Your task to perform on an android device: Do I have any events this weekend? Image 0: 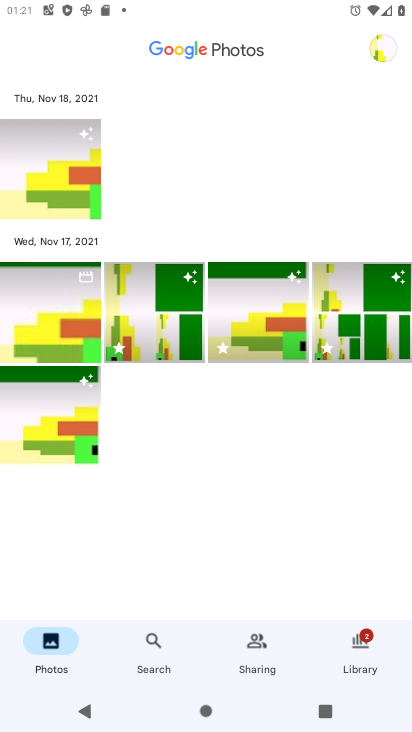
Step 0: press home button
Your task to perform on an android device: Do I have any events this weekend? Image 1: 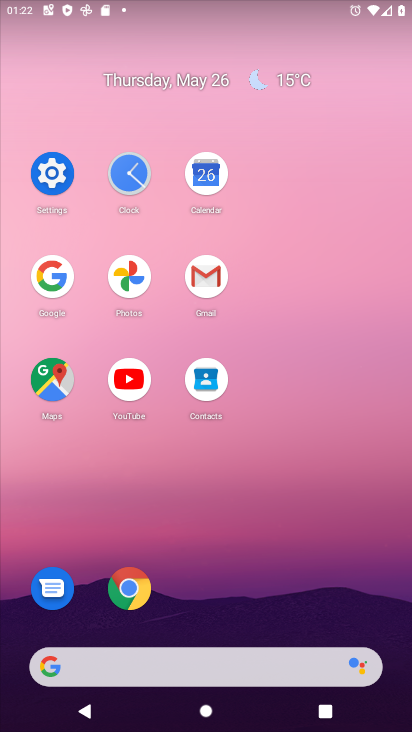
Step 1: click (210, 184)
Your task to perform on an android device: Do I have any events this weekend? Image 2: 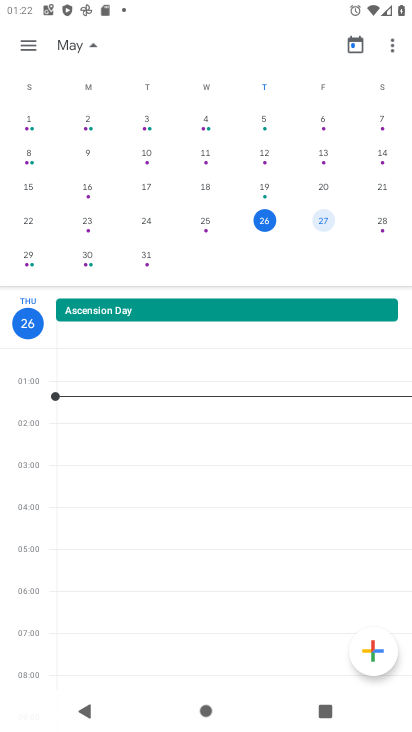
Step 2: click (21, 43)
Your task to perform on an android device: Do I have any events this weekend? Image 3: 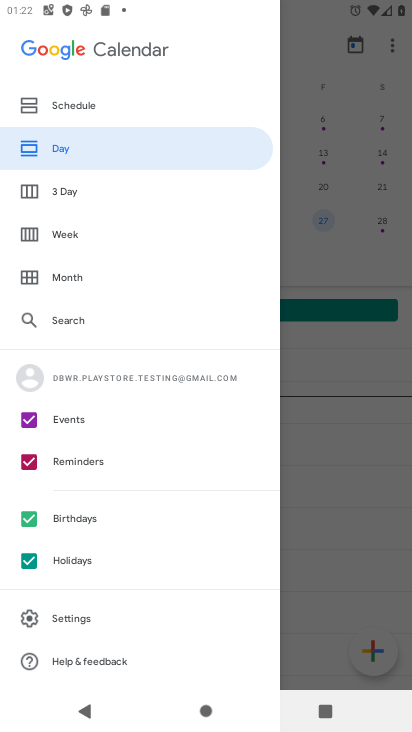
Step 3: click (90, 238)
Your task to perform on an android device: Do I have any events this weekend? Image 4: 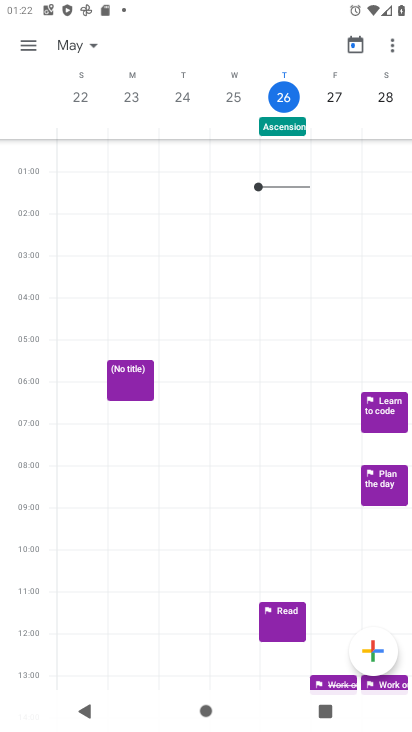
Step 4: task complete